Your task to perform on an android device: check data usage Image 0: 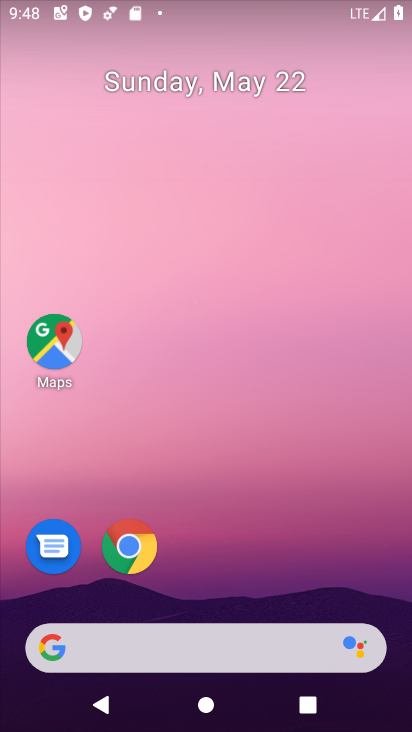
Step 0: drag from (324, 185) to (339, 114)
Your task to perform on an android device: check data usage Image 1: 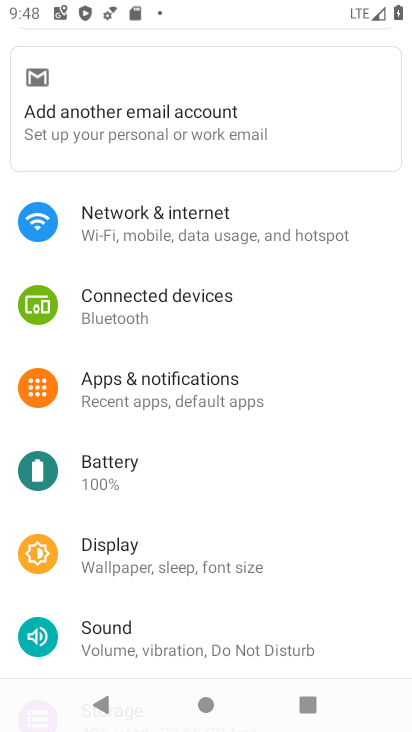
Step 1: drag from (156, 602) to (316, 94)
Your task to perform on an android device: check data usage Image 2: 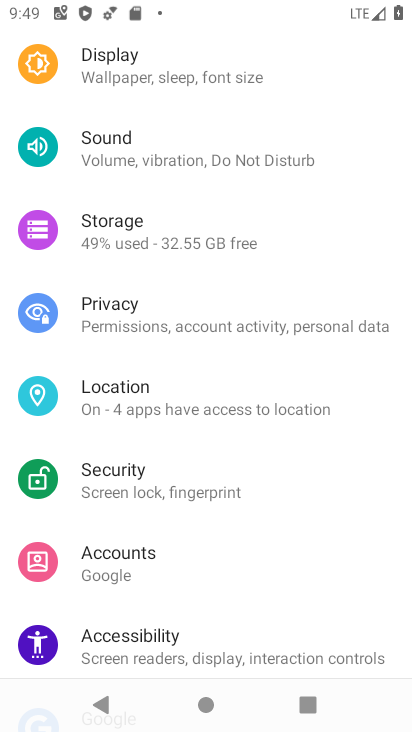
Step 2: drag from (178, 572) to (298, 127)
Your task to perform on an android device: check data usage Image 3: 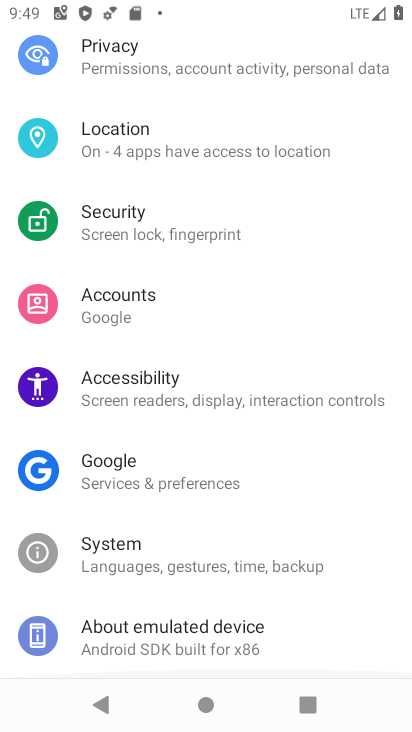
Step 3: drag from (298, 94) to (116, 707)
Your task to perform on an android device: check data usage Image 4: 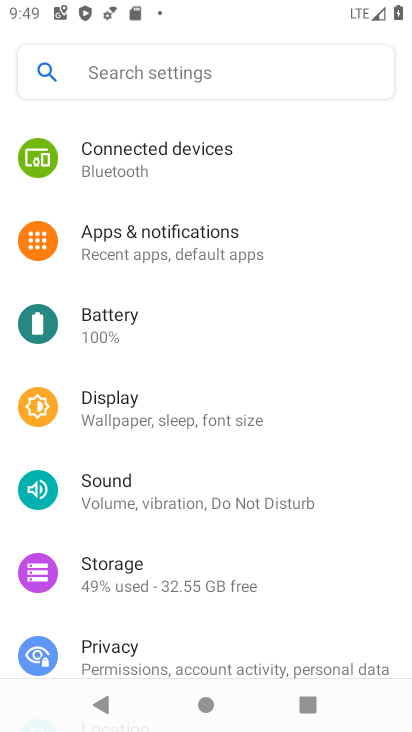
Step 4: drag from (189, 152) to (211, 675)
Your task to perform on an android device: check data usage Image 5: 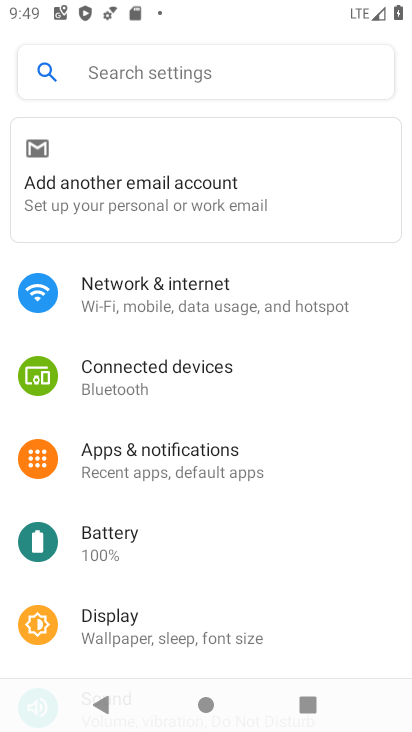
Step 5: click (161, 307)
Your task to perform on an android device: check data usage Image 6: 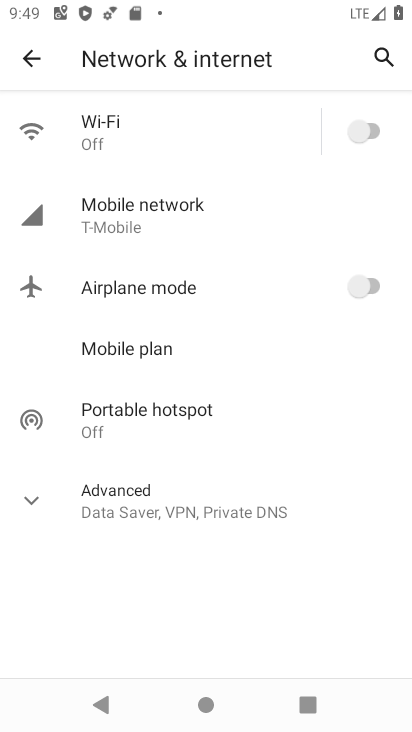
Step 6: click (173, 226)
Your task to perform on an android device: check data usage Image 7: 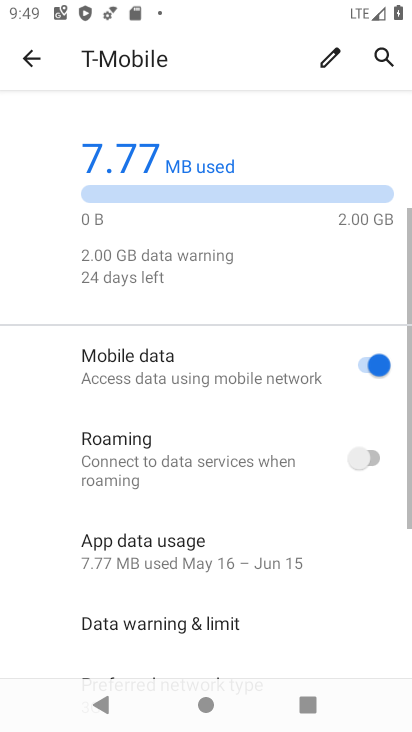
Step 7: task complete